Your task to perform on an android device: add a label to a message in the gmail app Image 0: 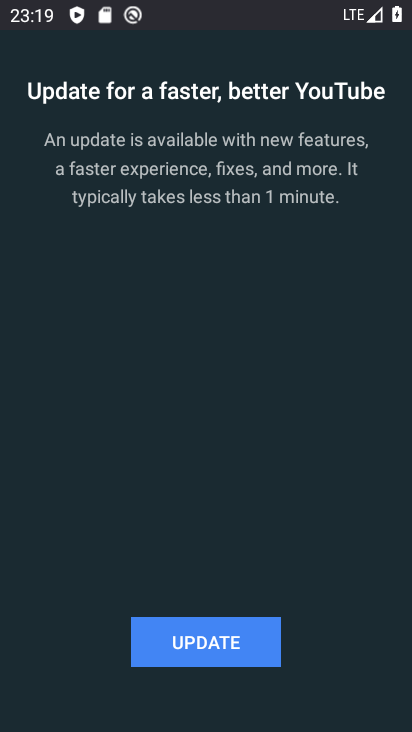
Step 0: press home button
Your task to perform on an android device: add a label to a message in the gmail app Image 1: 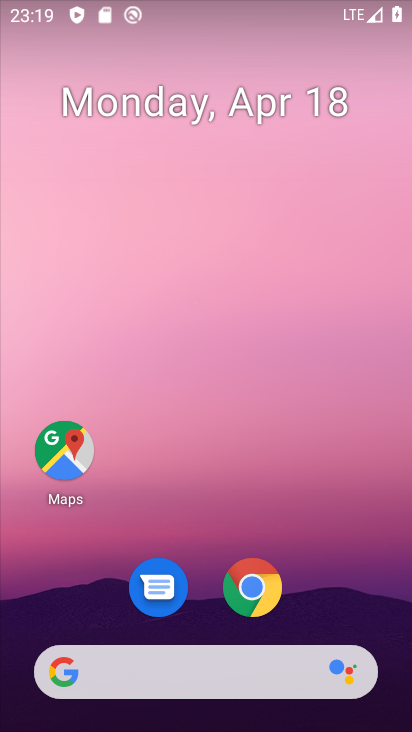
Step 1: drag from (357, 465) to (341, 148)
Your task to perform on an android device: add a label to a message in the gmail app Image 2: 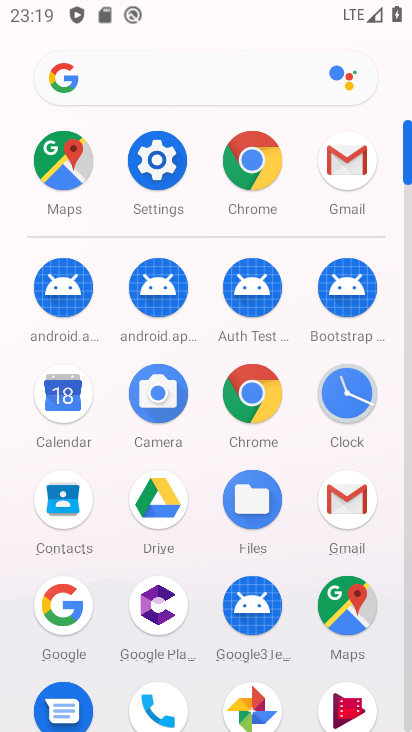
Step 2: click (366, 513)
Your task to perform on an android device: add a label to a message in the gmail app Image 3: 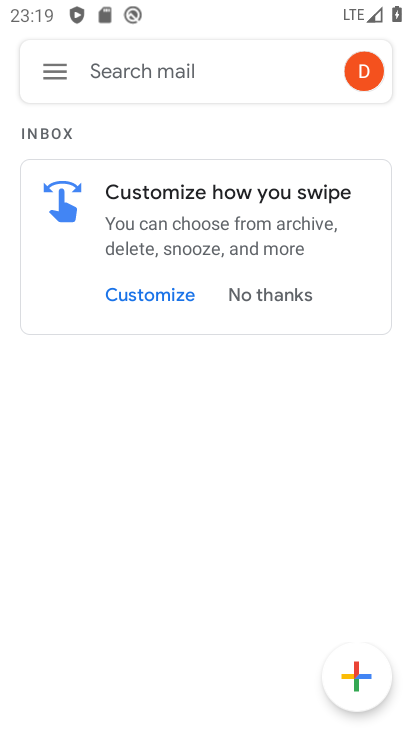
Step 3: click (46, 71)
Your task to perform on an android device: add a label to a message in the gmail app Image 4: 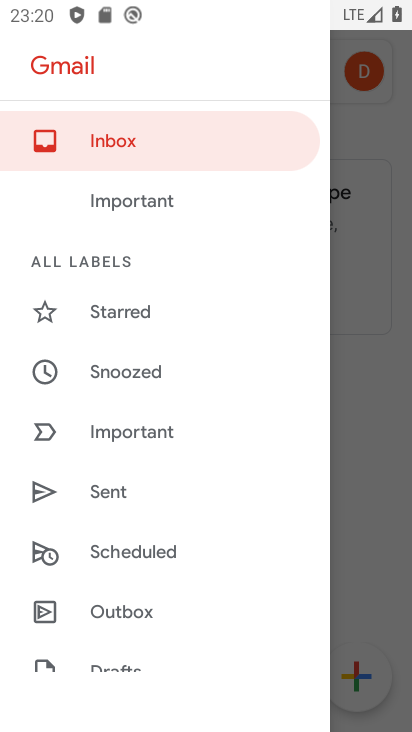
Step 4: drag from (165, 613) to (170, 345)
Your task to perform on an android device: add a label to a message in the gmail app Image 5: 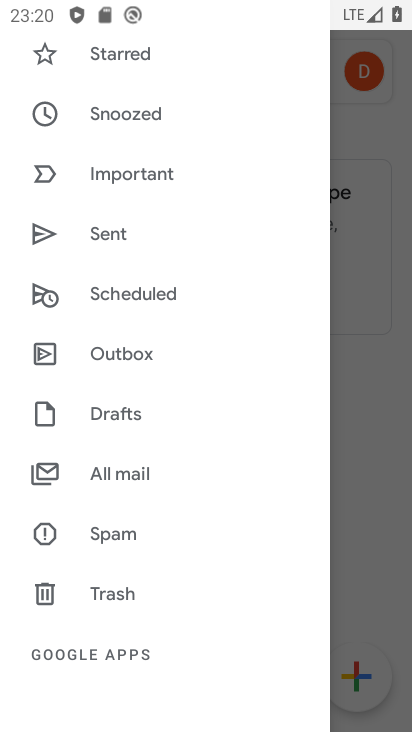
Step 5: click (132, 482)
Your task to perform on an android device: add a label to a message in the gmail app Image 6: 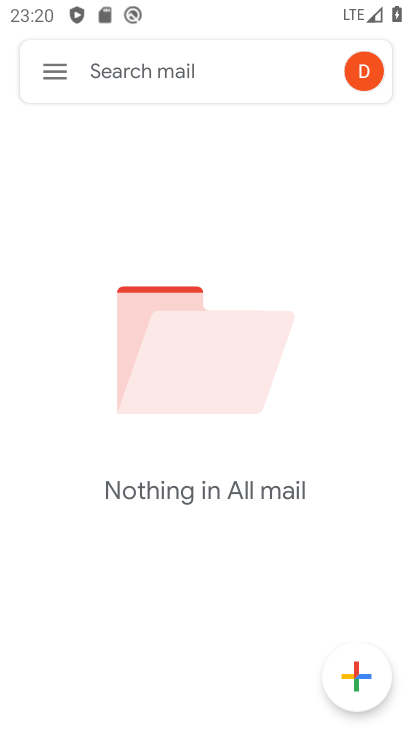
Step 6: task complete